Your task to perform on an android device: Open notification settings Image 0: 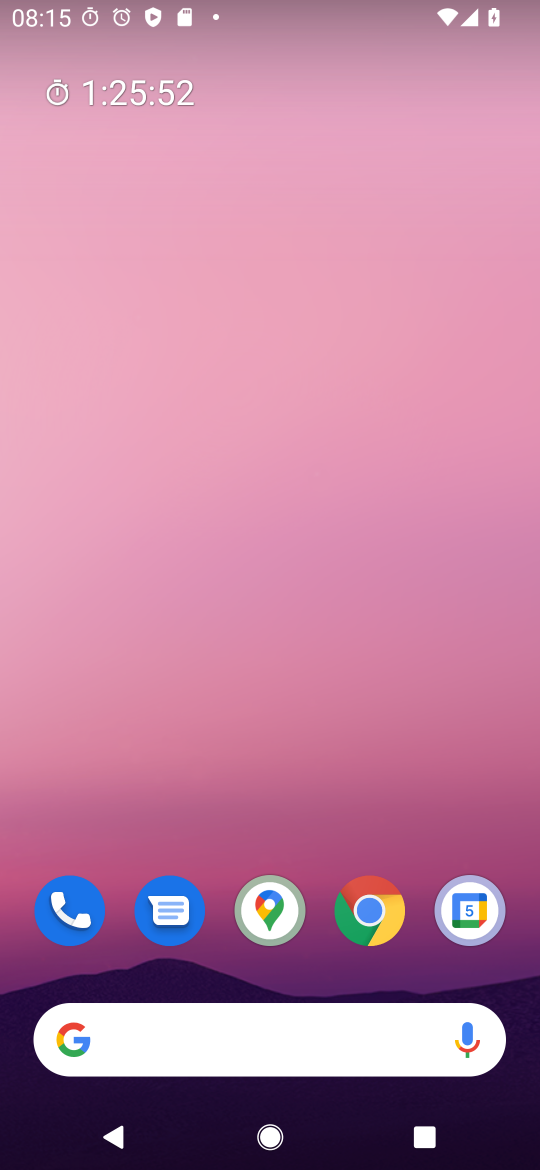
Step 0: drag from (307, 996) to (297, 227)
Your task to perform on an android device: Open notification settings Image 1: 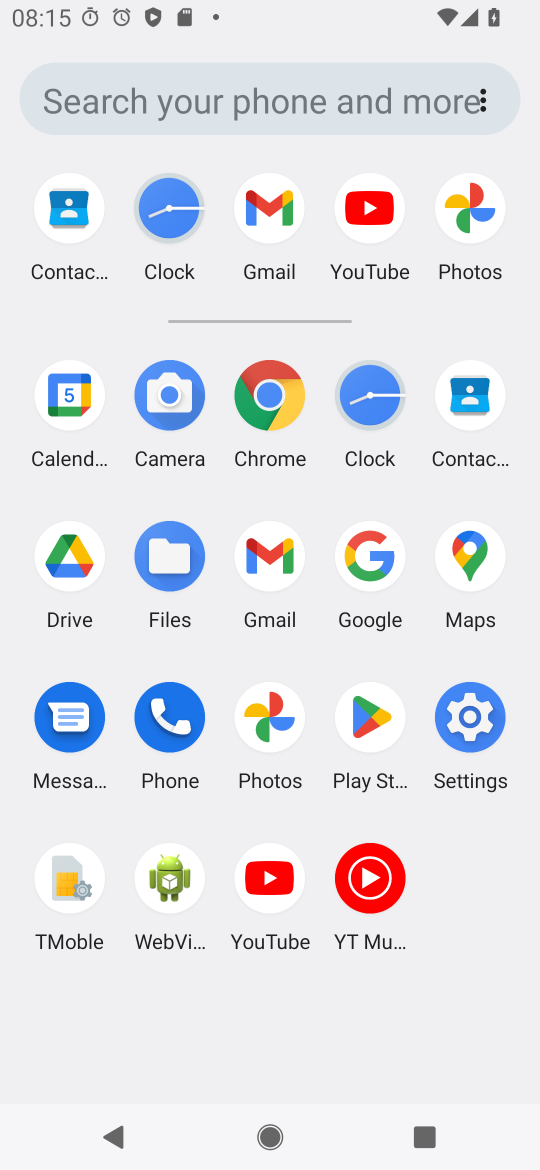
Step 1: click (490, 718)
Your task to perform on an android device: Open notification settings Image 2: 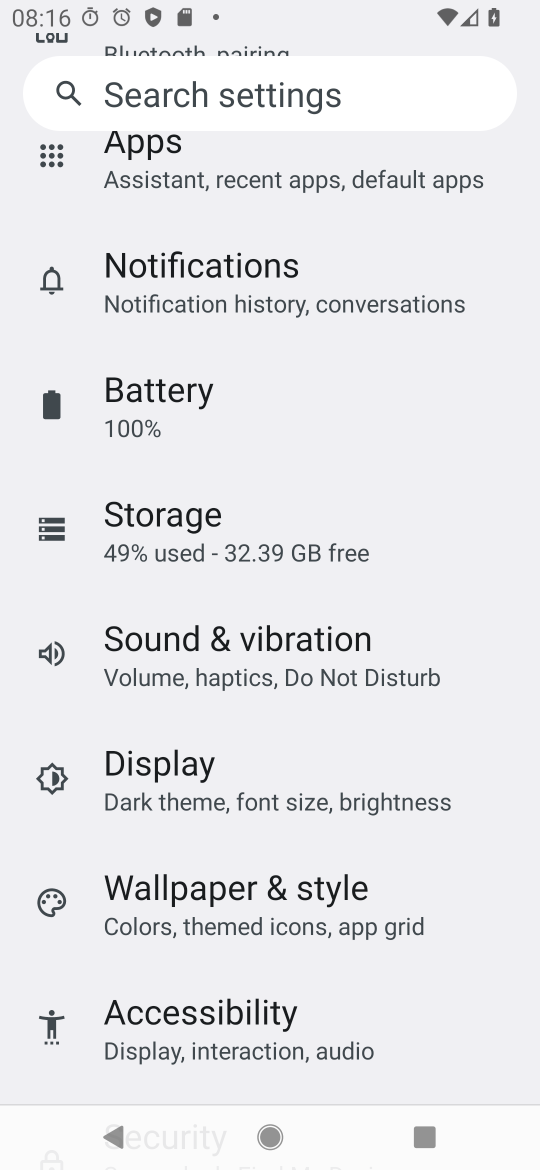
Step 2: click (362, 283)
Your task to perform on an android device: Open notification settings Image 3: 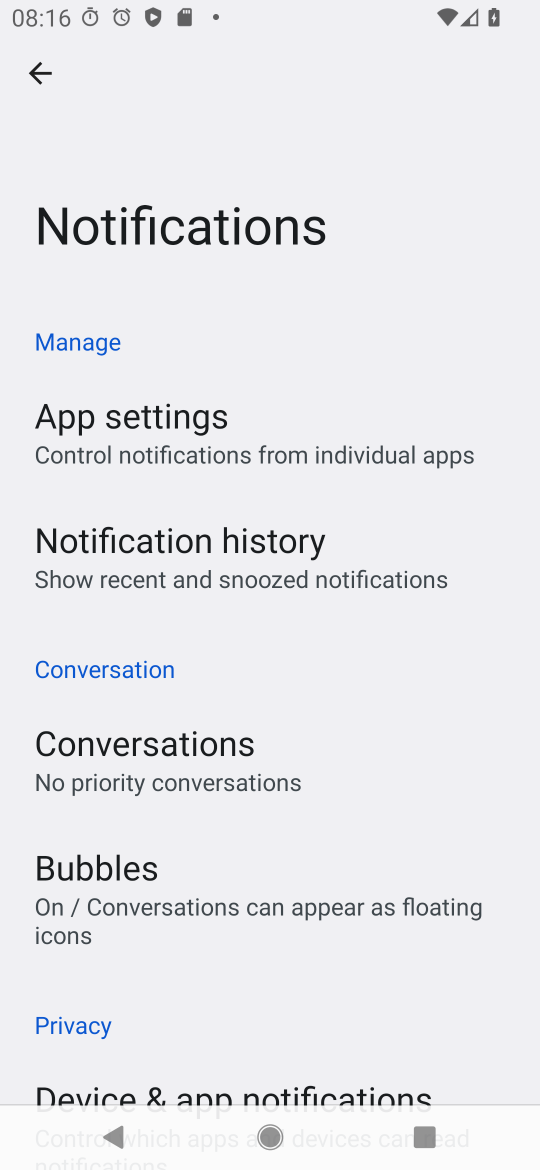
Step 3: task complete